Your task to perform on an android device: set an alarm Image 0: 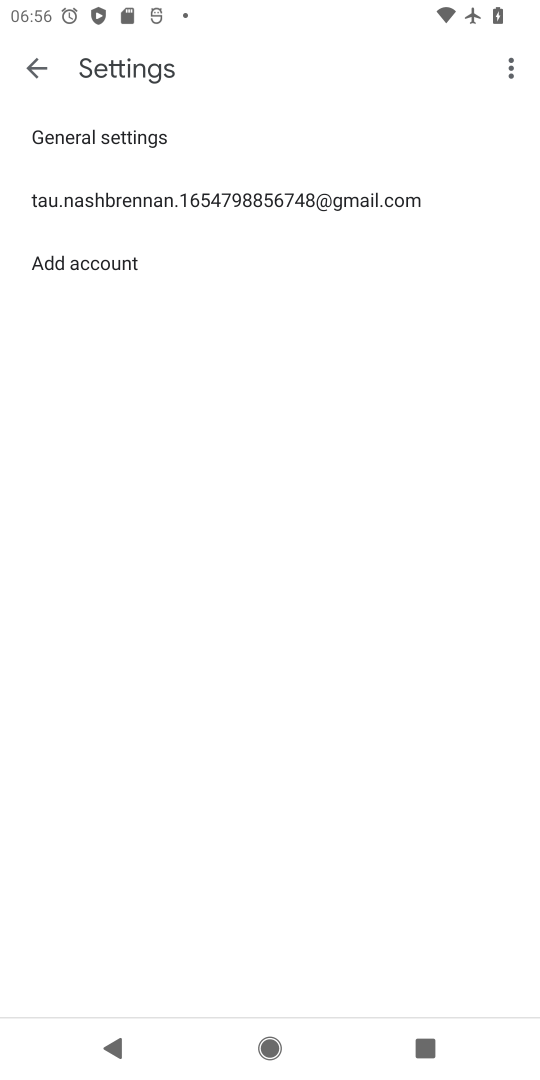
Step 0: press home button
Your task to perform on an android device: set an alarm Image 1: 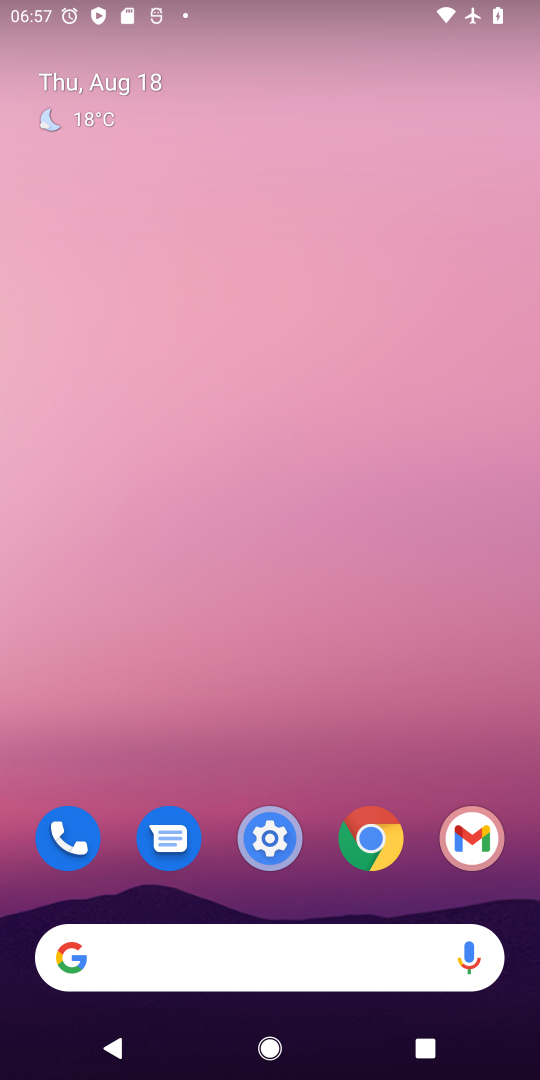
Step 1: drag from (310, 896) to (346, 0)
Your task to perform on an android device: set an alarm Image 2: 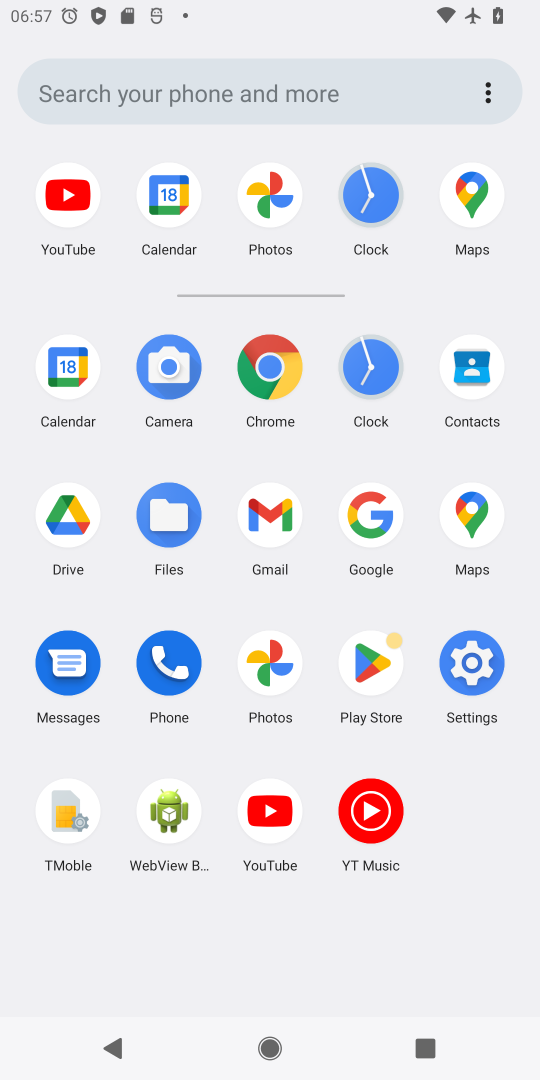
Step 2: click (373, 368)
Your task to perform on an android device: set an alarm Image 3: 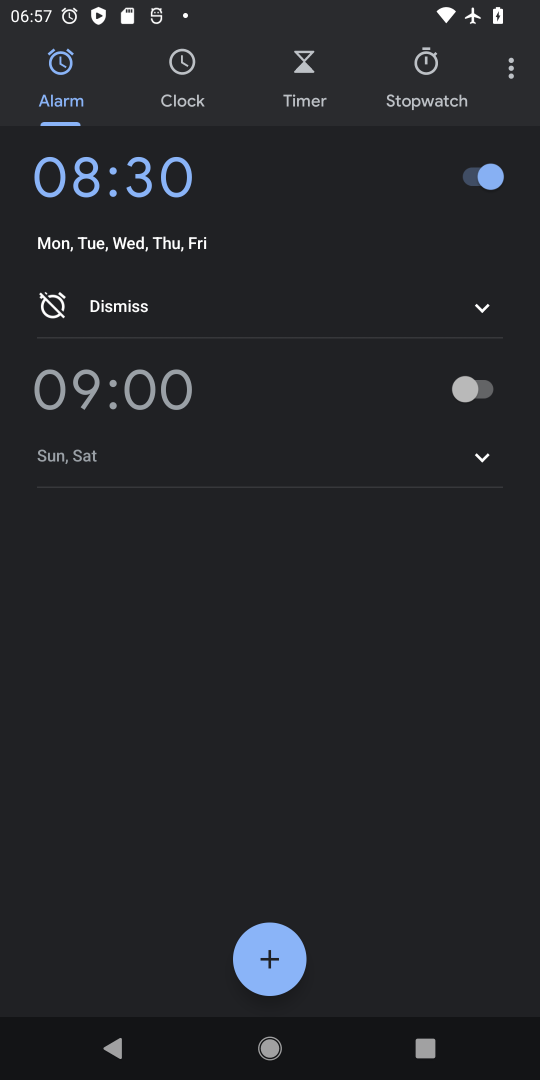
Step 3: click (465, 390)
Your task to perform on an android device: set an alarm Image 4: 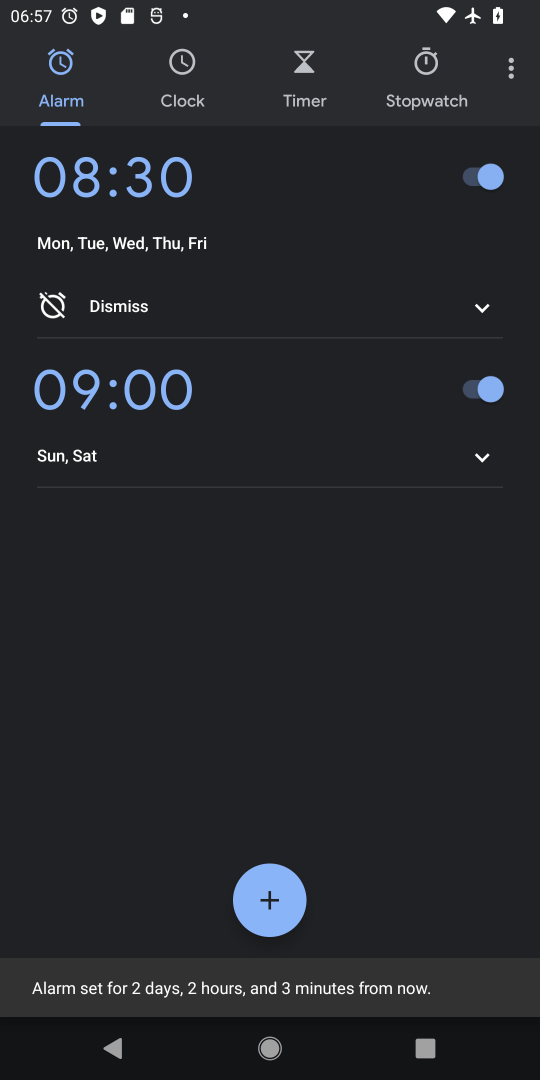
Step 4: task complete